Your task to perform on an android device: empty trash in the gmail app Image 0: 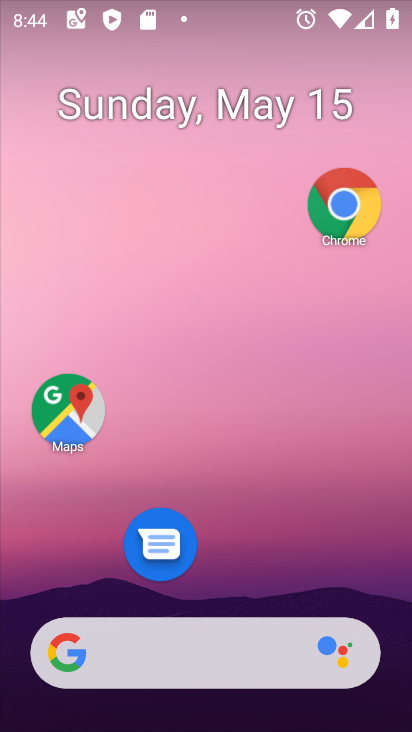
Step 0: drag from (276, 574) to (213, 49)
Your task to perform on an android device: empty trash in the gmail app Image 1: 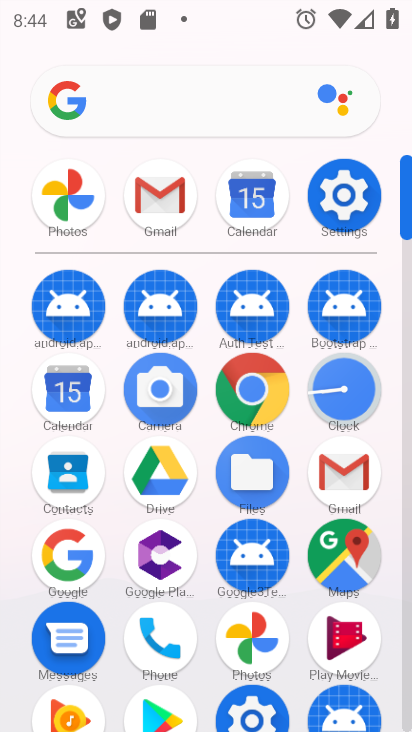
Step 1: click (162, 220)
Your task to perform on an android device: empty trash in the gmail app Image 2: 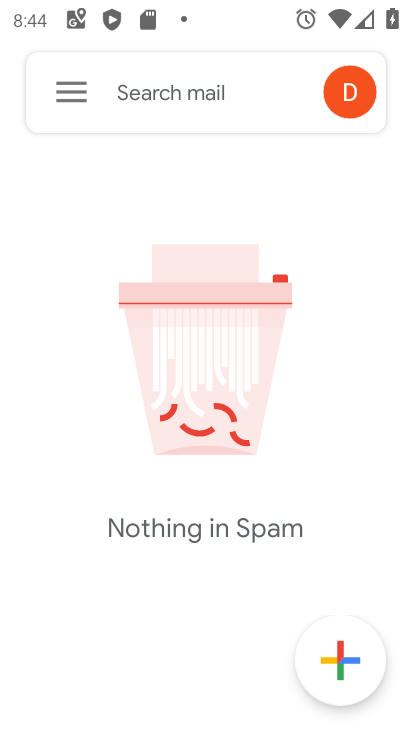
Step 2: click (62, 95)
Your task to perform on an android device: empty trash in the gmail app Image 3: 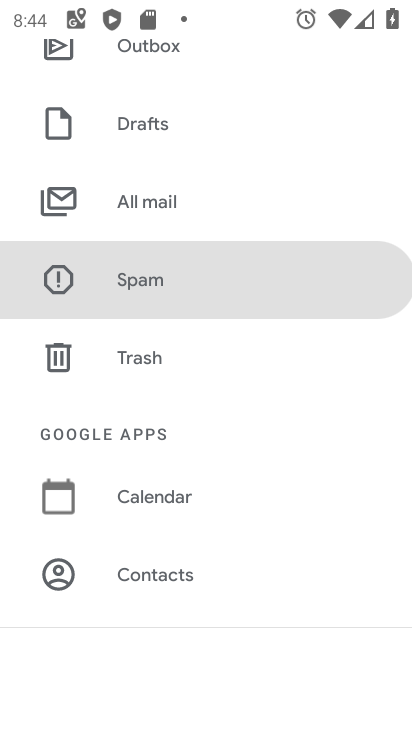
Step 3: click (134, 361)
Your task to perform on an android device: empty trash in the gmail app Image 4: 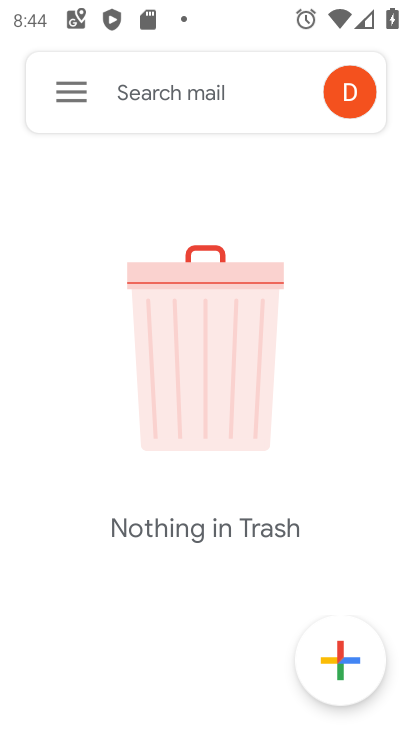
Step 4: task complete